Your task to perform on an android device: move a message to another label in the gmail app Image 0: 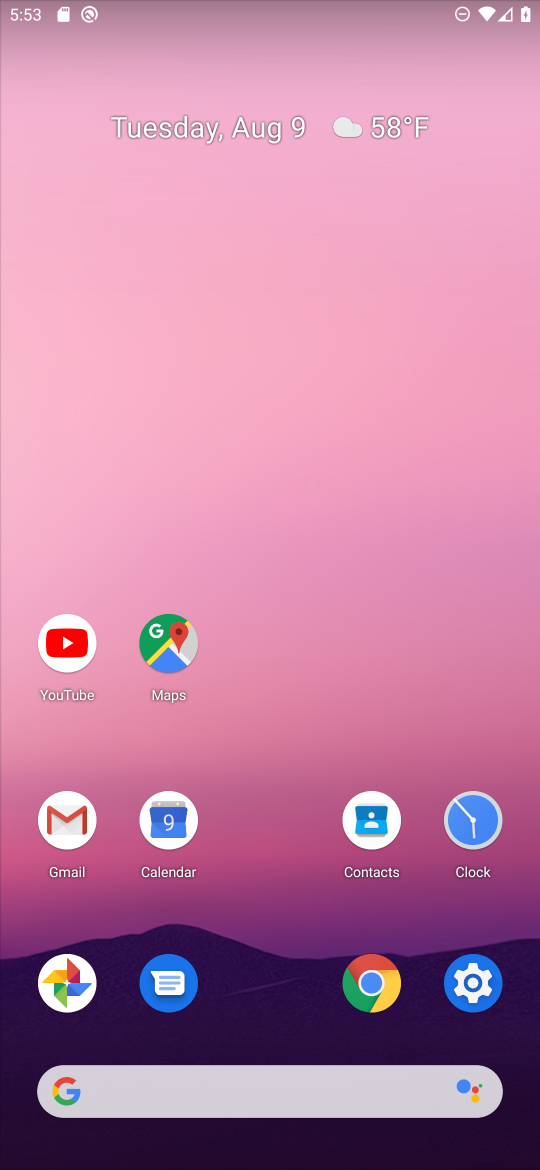
Step 0: click (62, 820)
Your task to perform on an android device: move a message to another label in the gmail app Image 1: 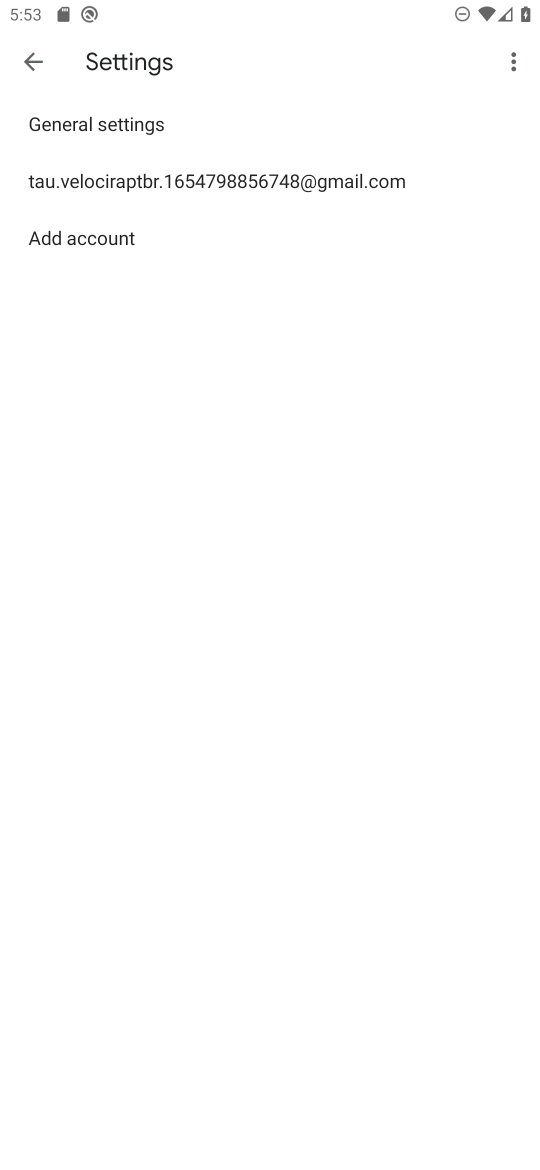
Step 1: click (29, 60)
Your task to perform on an android device: move a message to another label in the gmail app Image 2: 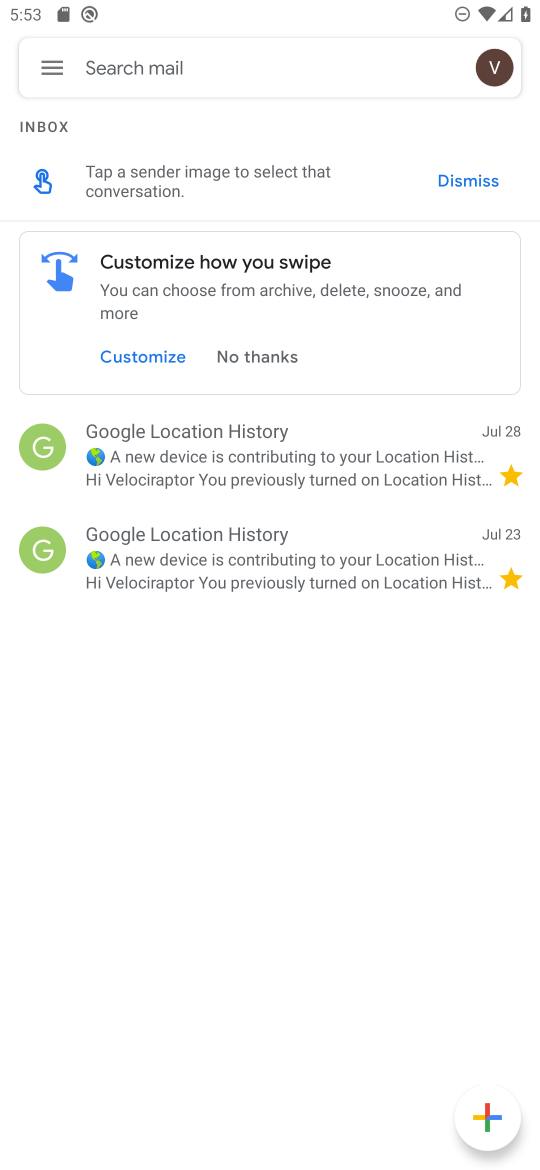
Step 2: click (246, 466)
Your task to perform on an android device: move a message to another label in the gmail app Image 3: 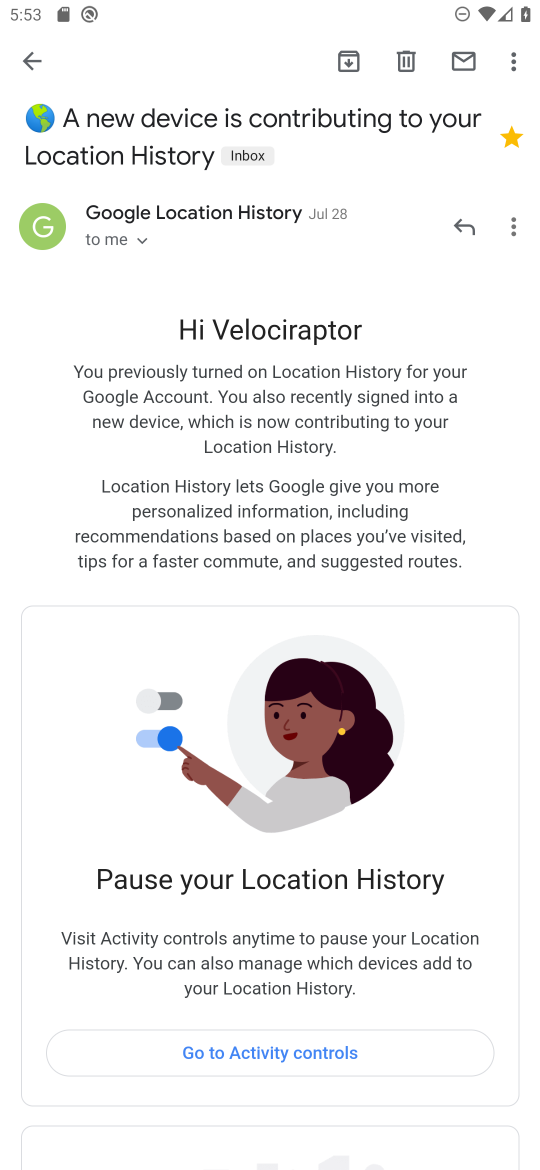
Step 3: click (504, 61)
Your task to perform on an android device: move a message to another label in the gmail app Image 4: 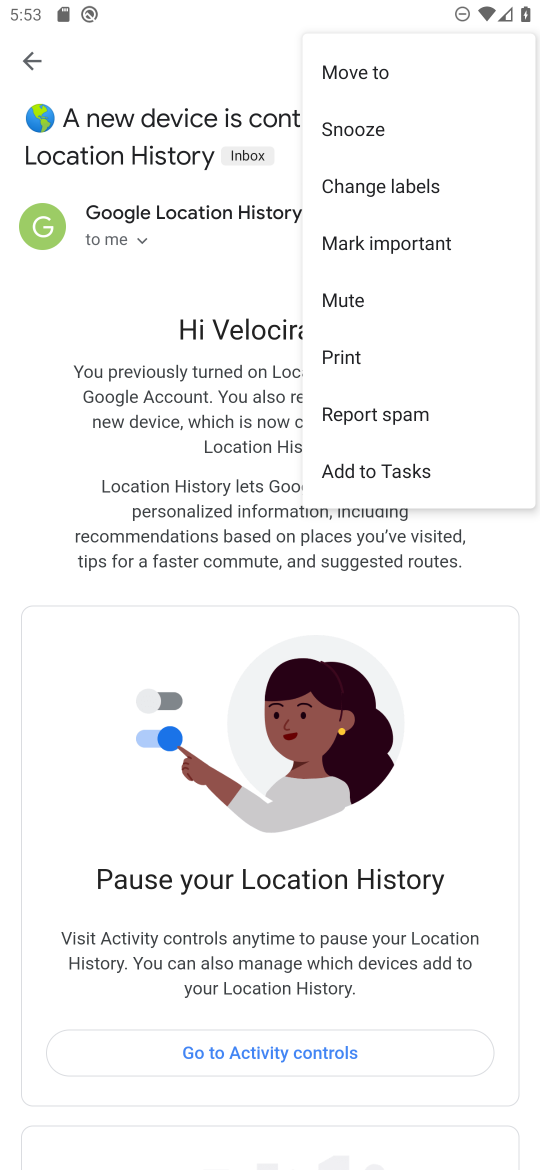
Step 4: click (378, 173)
Your task to perform on an android device: move a message to another label in the gmail app Image 5: 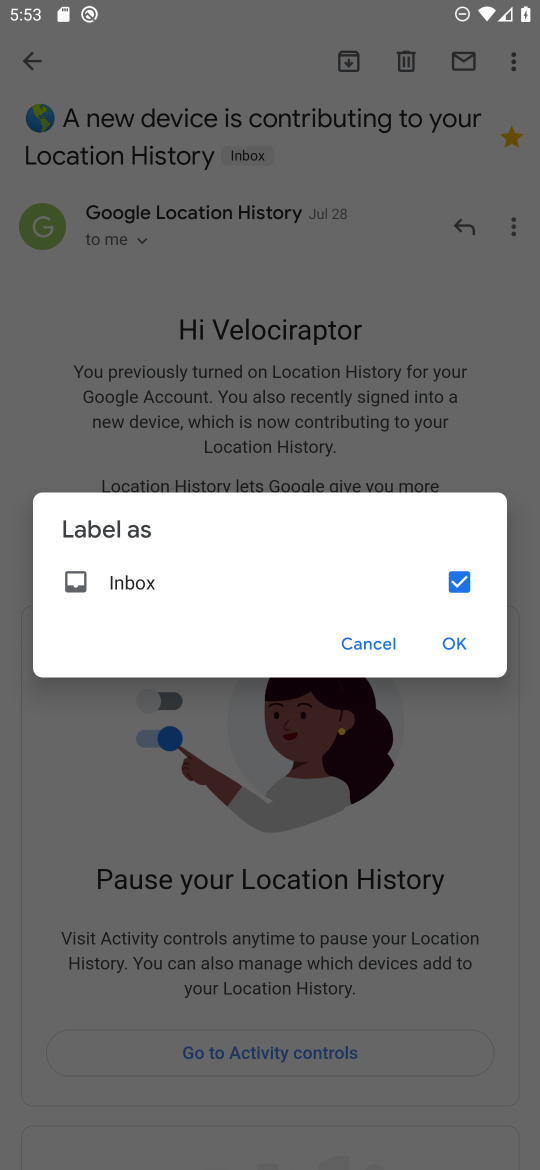
Step 5: click (453, 640)
Your task to perform on an android device: move a message to another label in the gmail app Image 6: 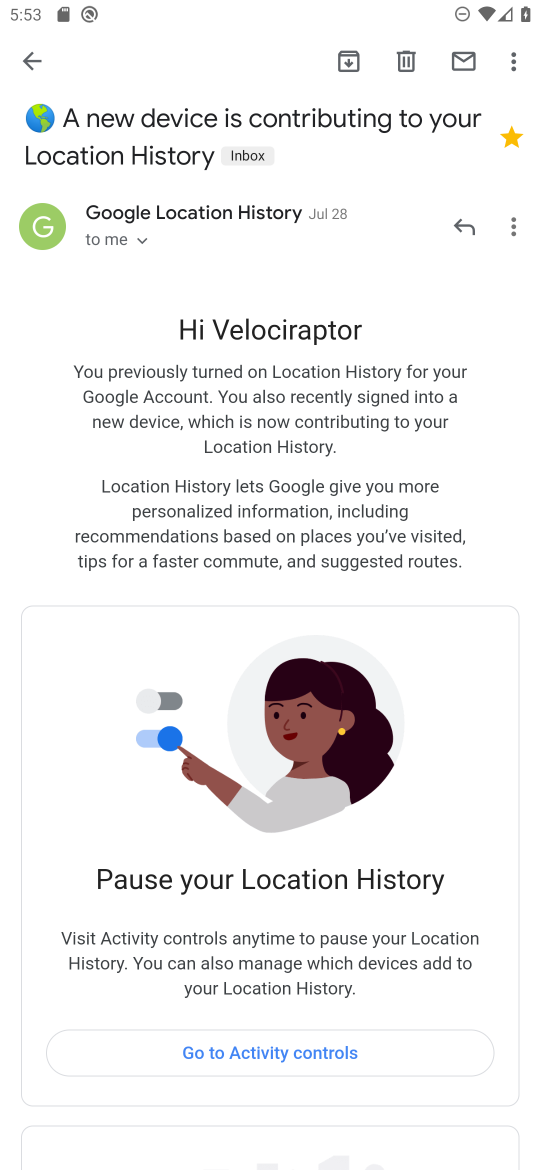
Step 6: task complete